Your task to perform on an android device: Search for pizza restaurants on Maps Image 0: 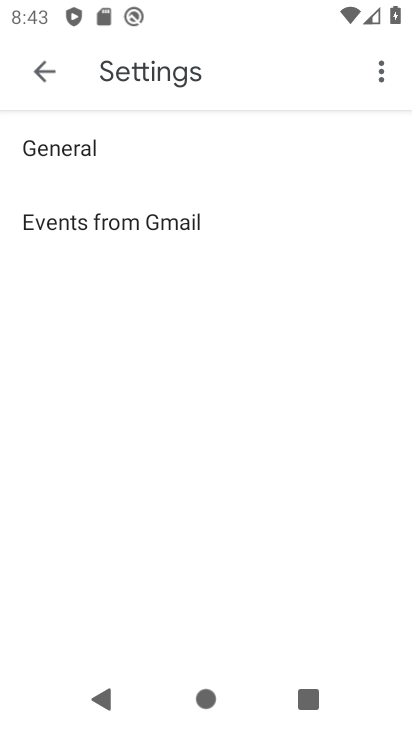
Step 0: press home button
Your task to perform on an android device: Search for pizza restaurants on Maps Image 1: 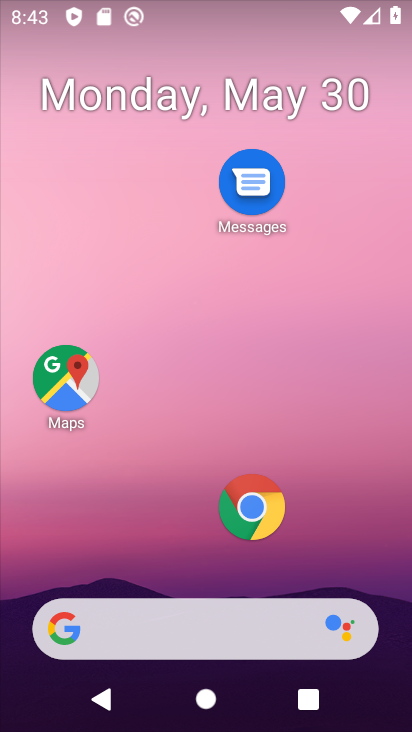
Step 1: drag from (210, 571) to (239, 677)
Your task to perform on an android device: Search for pizza restaurants on Maps Image 2: 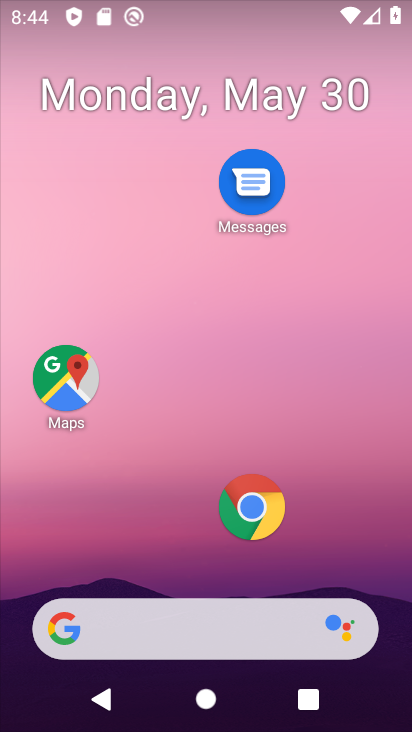
Step 2: drag from (199, 625) to (252, 161)
Your task to perform on an android device: Search for pizza restaurants on Maps Image 3: 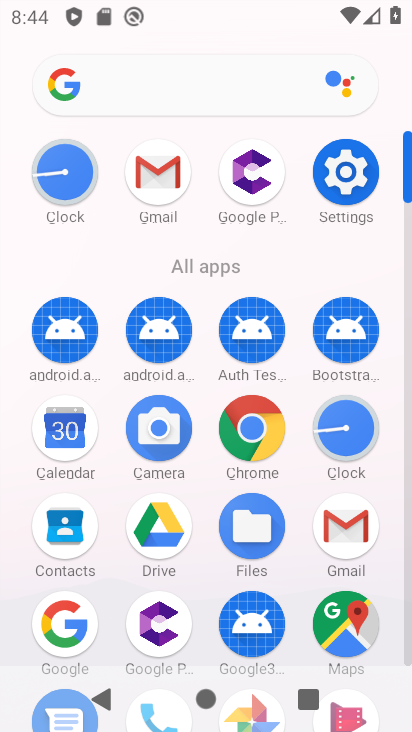
Step 3: click (348, 645)
Your task to perform on an android device: Search for pizza restaurants on Maps Image 4: 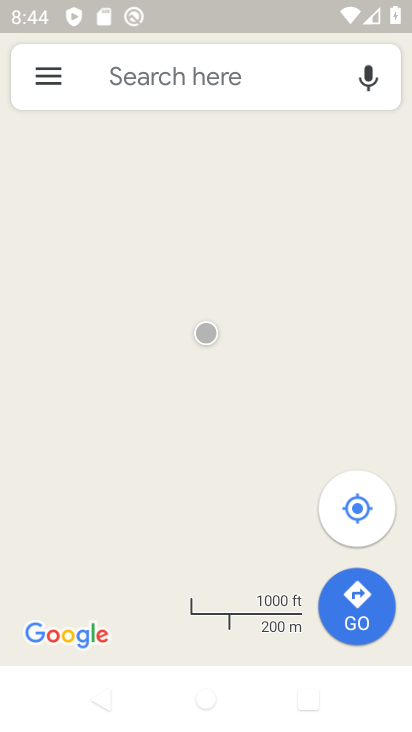
Step 4: click (214, 70)
Your task to perform on an android device: Search for pizza restaurants on Maps Image 5: 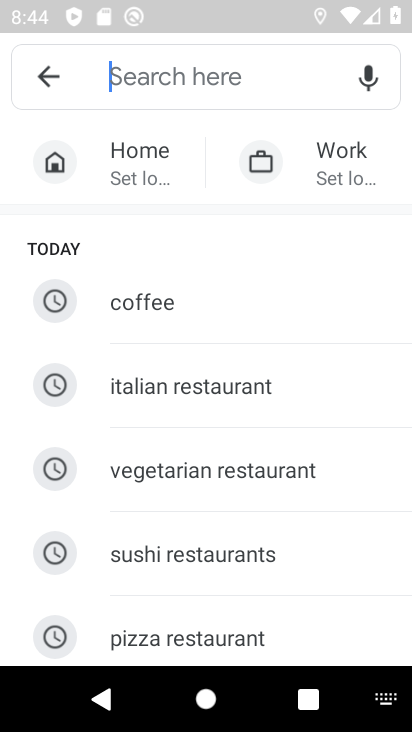
Step 5: type "pi"
Your task to perform on an android device: Search for pizza restaurants on Maps Image 6: 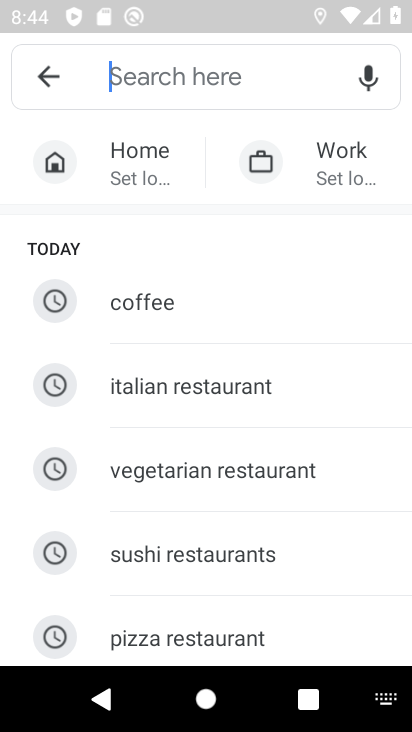
Step 6: click (236, 648)
Your task to perform on an android device: Search for pizza restaurants on Maps Image 7: 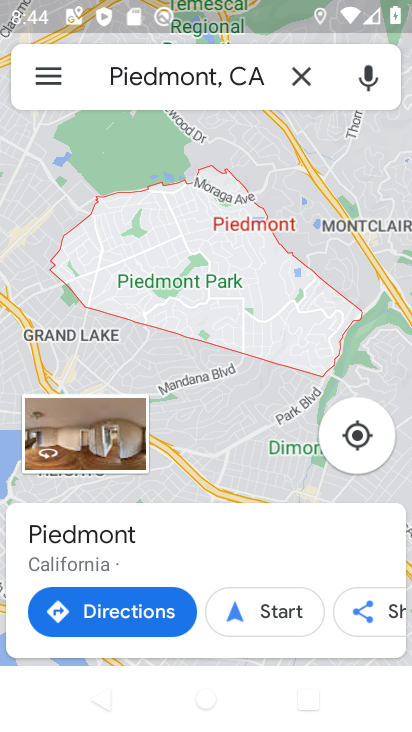
Step 7: click (296, 82)
Your task to perform on an android device: Search for pizza restaurants on Maps Image 8: 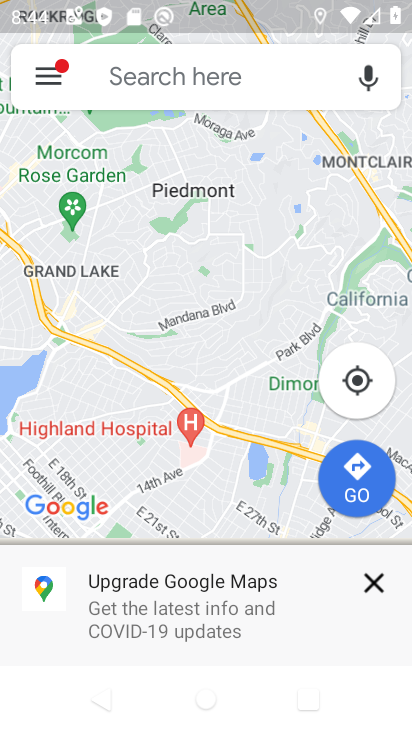
Step 8: click (198, 77)
Your task to perform on an android device: Search for pizza restaurants on Maps Image 9: 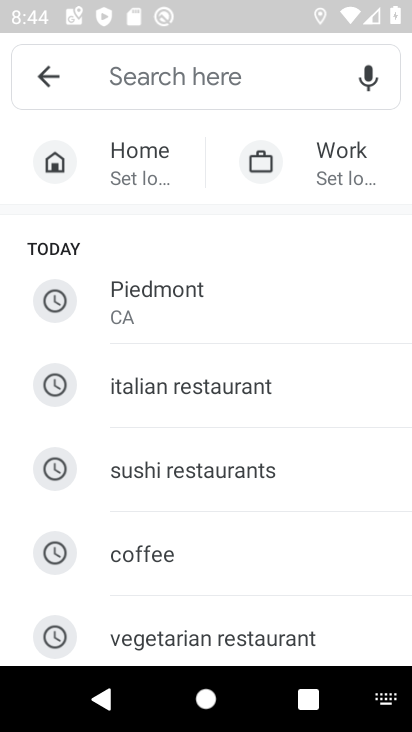
Step 9: drag from (174, 641) to (198, 479)
Your task to perform on an android device: Search for pizza restaurants on Maps Image 10: 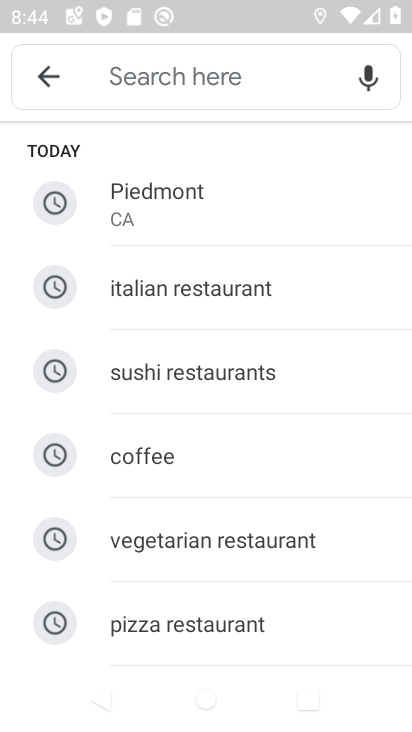
Step 10: click (178, 640)
Your task to perform on an android device: Search for pizza restaurants on Maps Image 11: 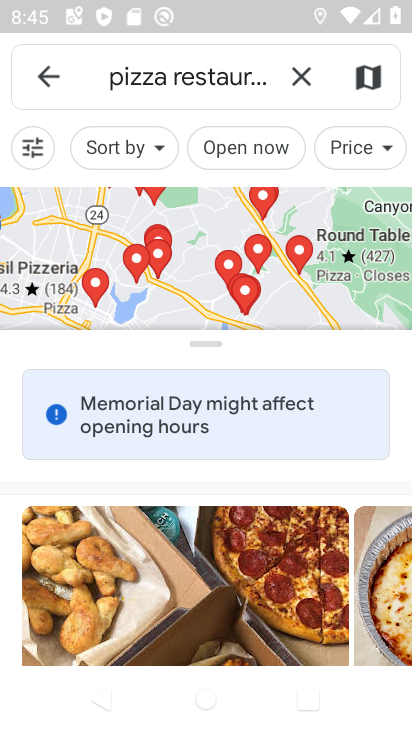
Step 11: task complete